Your task to perform on an android device: turn on notifications settings in the gmail app Image 0: 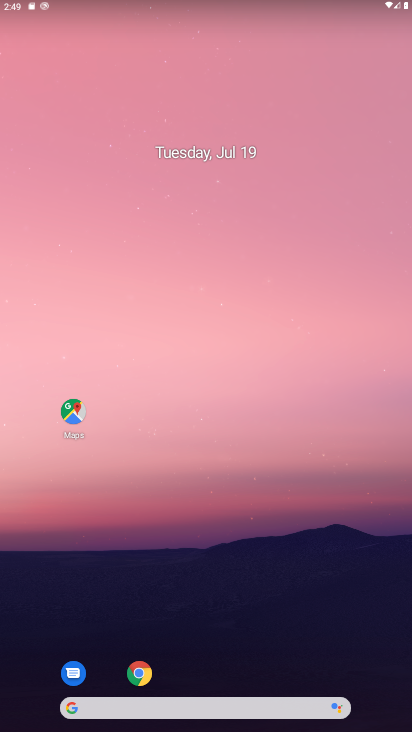
Step 0: drag from (216, 663) to (307, 0)
Your task to perform on an android device: turn on notifications settings in the gmail app Image 1: 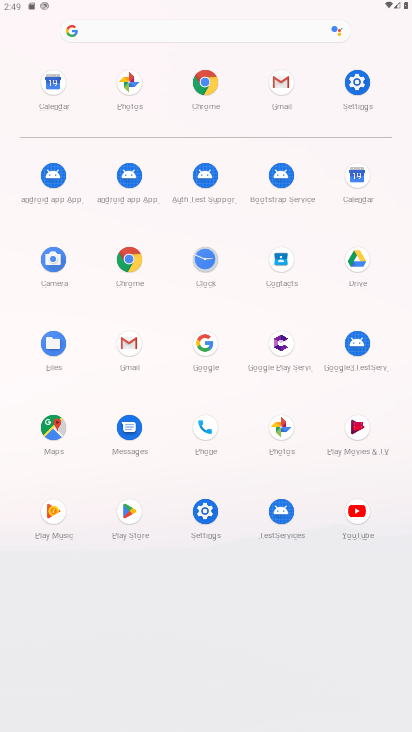
Step 1: click (122, 349)
Your task to perform on an android device: turn on notifications settings in the gmail app Image 2: 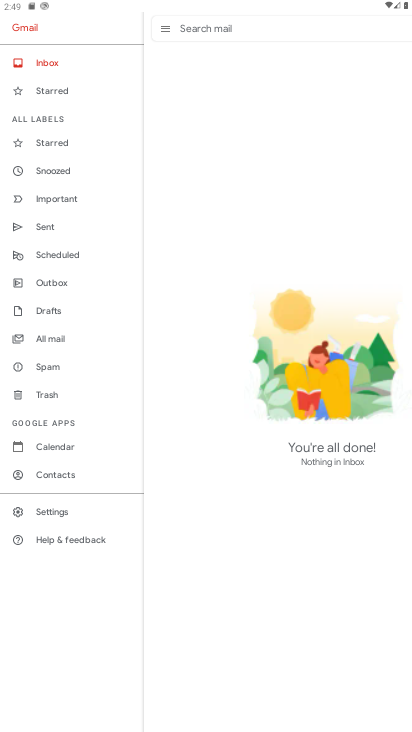
Step 2: click (50, 515)
Your task to perform on an android device: turn on notifications settings in the gmail app Image 3: 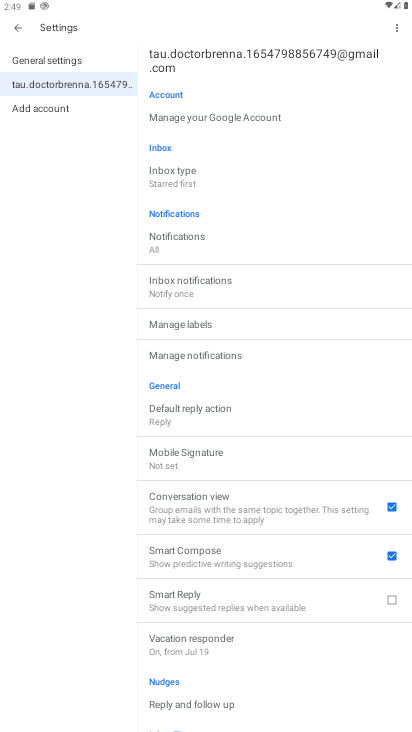
Step 3: click (54, 57)
Your task to perform on an android device: turn on notifications settings in the gmail app Image 4: 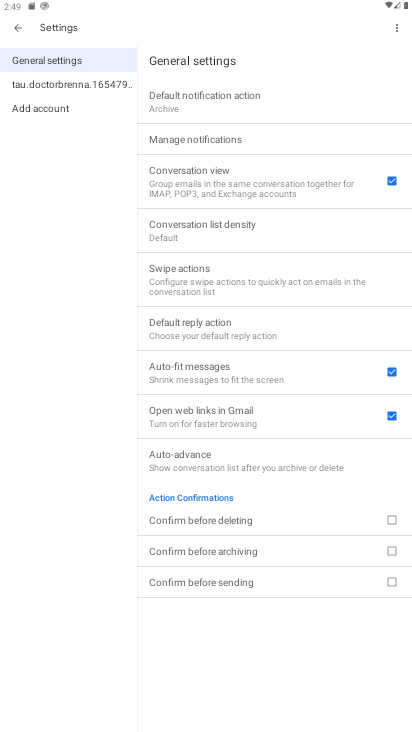
Step 4: click (242, 144)
Your task to perform on an android device: turn on notifications settings in the gmail app Image 5: 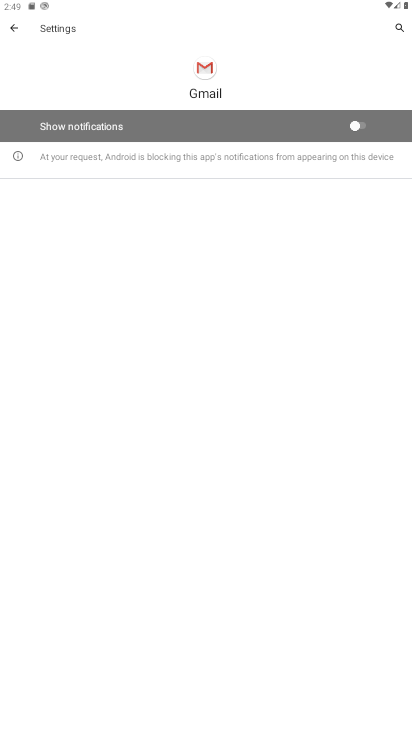
Step 5: click (305, 133)
Your task to perform on an android device: turn on notifications settings in the gmail app Image 6: 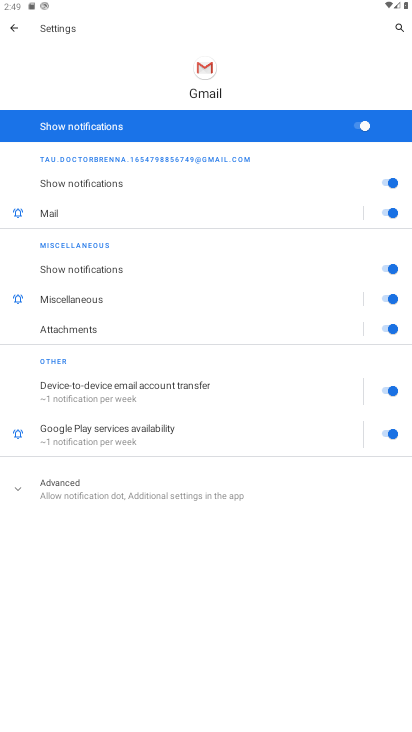
Step 6: task complete